Your task to perform on an android device: clear history in the chrome app Image 0: 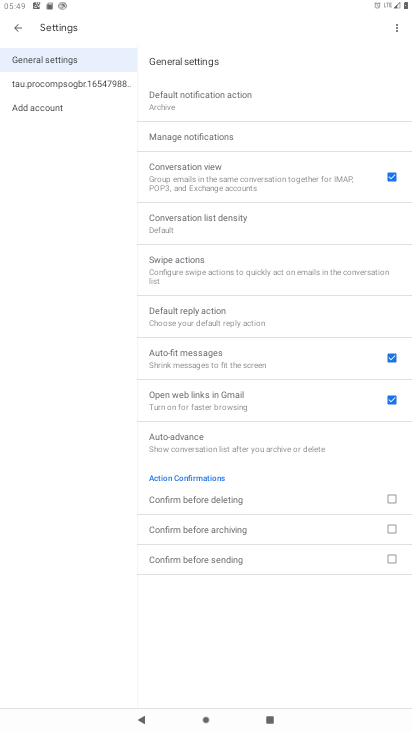
Step 0: press home button
Your task to perform on an android device: clear history in the chrome app Image 1: 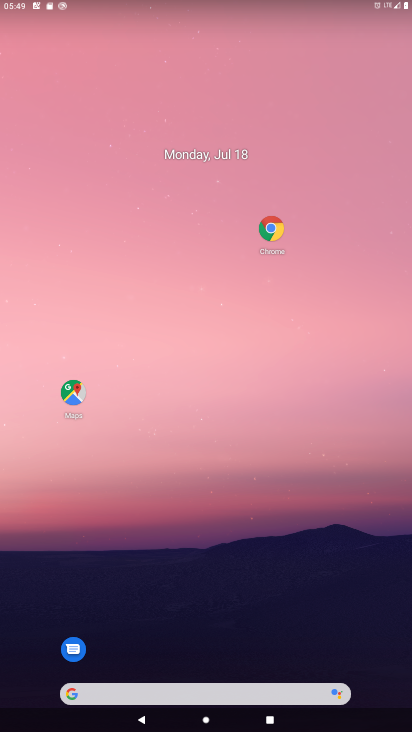
Step 1: click (279, 241)
Your task to perform on an android device: clear history in the chrome app Image 2: 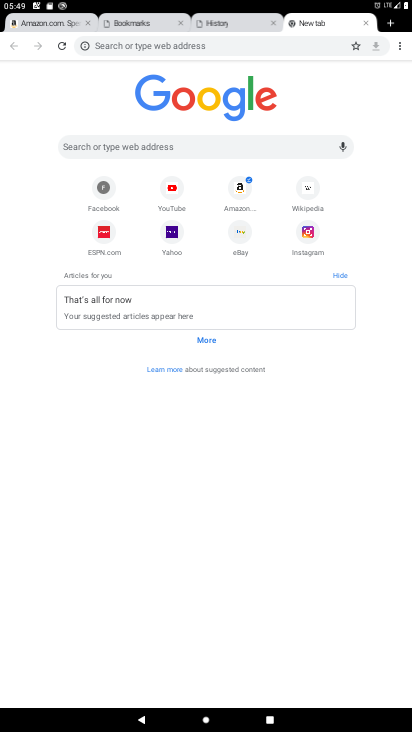
Step 2: click (400, 40)
Your task to perform on an android device: clear history in the chrome app Image 3: 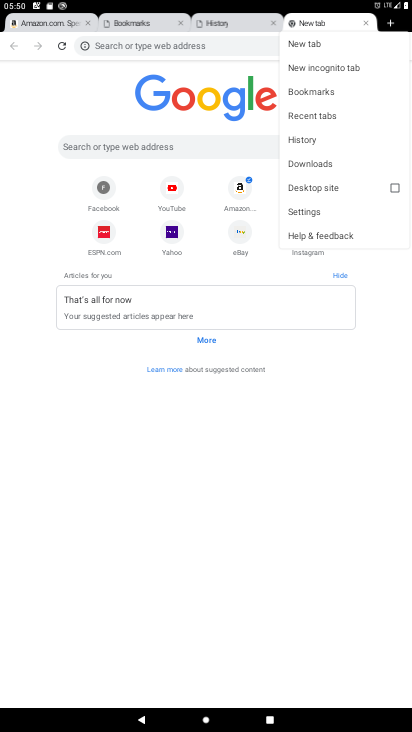
Step 3: click (303, 139)
Your task to perform on an android device: clear history in the chrome app Image 4: 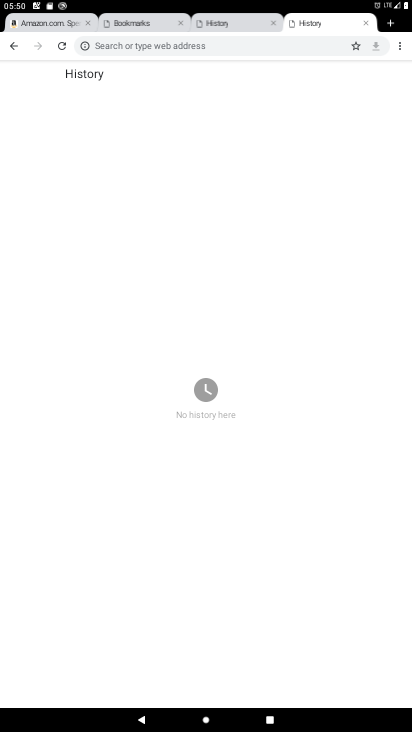
Step 4: task complete